Your task to perform on an android device: turn off priority inbox in the gmail app Image 0: 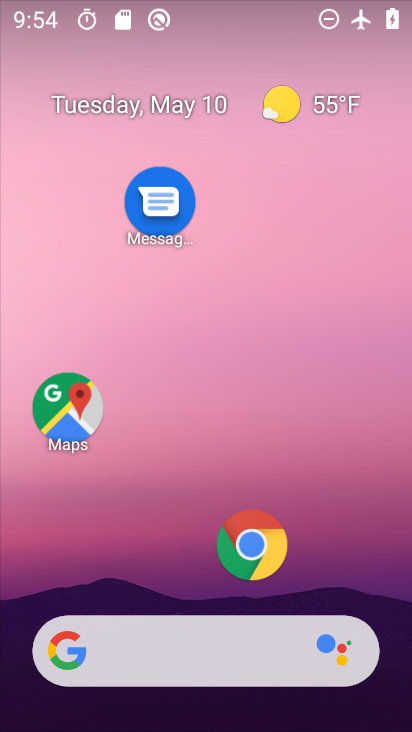
Step 0: drag from (134, 583) to (120, 162)
Your task to perform on an android device: turn off priority inbox in the gmail app Image 1: 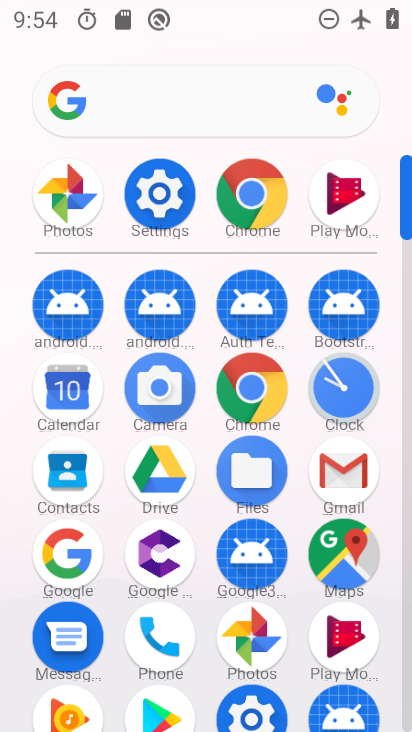
Step 1: click (339, 444)
Your task to perform on an android device: turn off priority inbox in the gmail app Image 2: 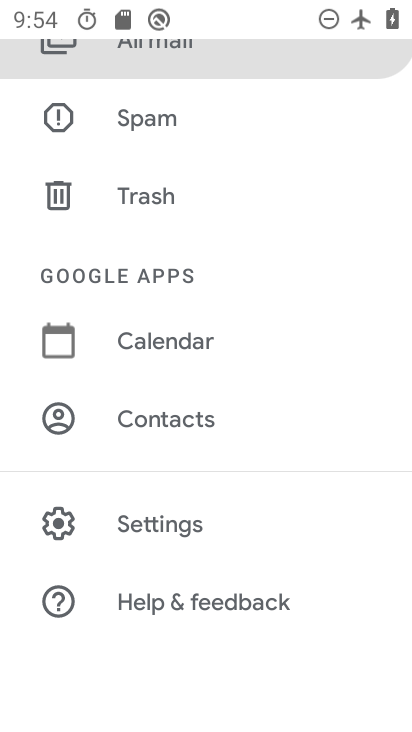
Step 2: click (182, 512)
Your task to perform on an android device: turn off priority inbox in the gmail app Image 3: 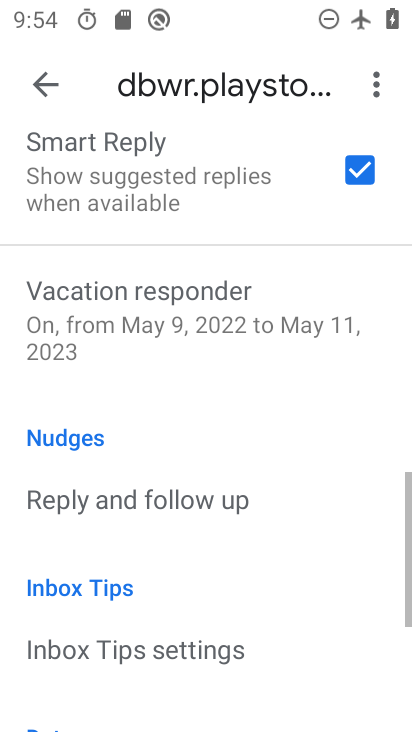
Step 3: drag from (210, 581) to (196, 303)
Your task to perform on an android device: turn off priority inbox in the gmail app Image 4: 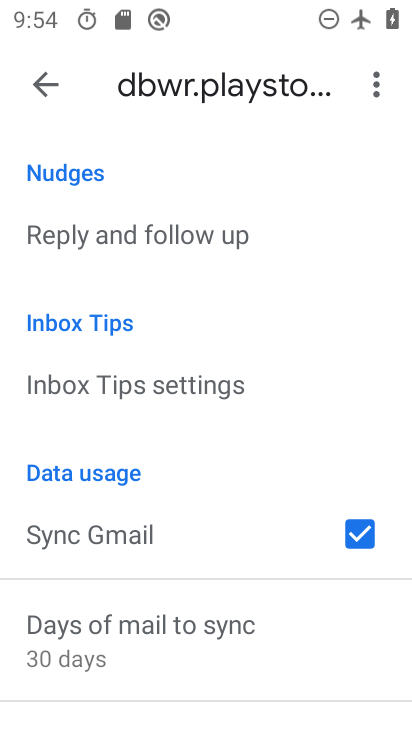
Step 4: drag from (193, 609) to (221, 304)
Your task to perform on an android device: turn off priority inbox in the gmail app Image 5: 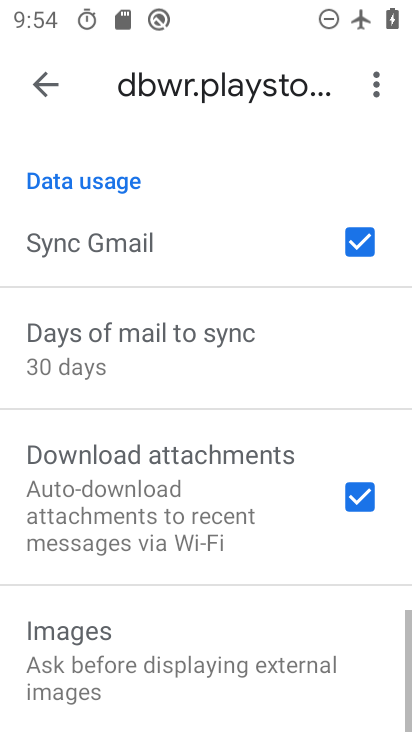
Step 5: drag from (217, 557) to (246, 290)
Your task to perform on an android device: turn off priority inbox in the gmail app Image 6: 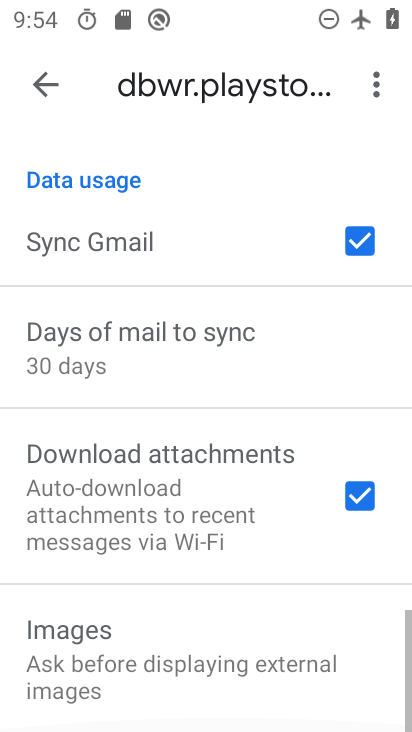
Step 6: drag from (177, 583) to (161, 339)
Your task to perform on an android device: turn off priority inbox in the gmail app Image 7: 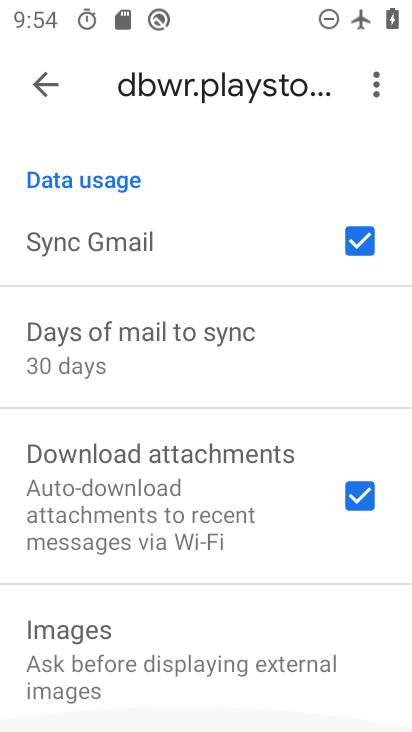
Step 7: drag from (205, 214) to (189, 525)
Your task to perform on an android device: turn off priority inbox in the gmail app Image 8: 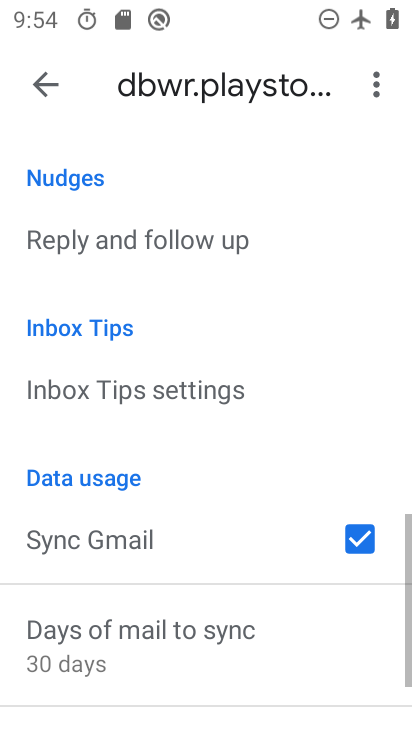
Step 8: drag from (196, 262) to (220, 547)
Your task to perform on an android device: turn off priority inbox in the gmail app Image 9: 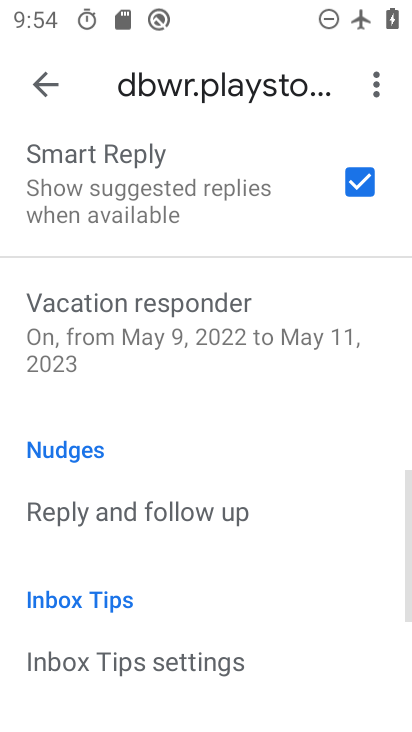
Step 9: drag from (220, 328) to (230, 570)
Your task to perform on an android device: turn off priority inbox in the gmail app Image 10: 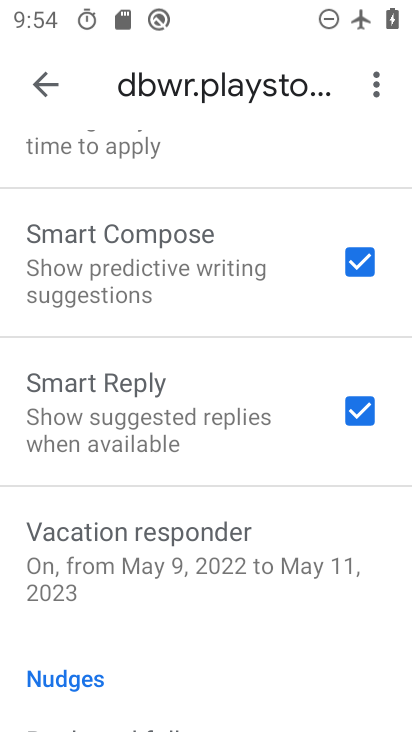
Step 10: drag from (169, 249) to (181, 598)
Your task to perform on an android device: turn off priority inbox in the gmail app Image 11: 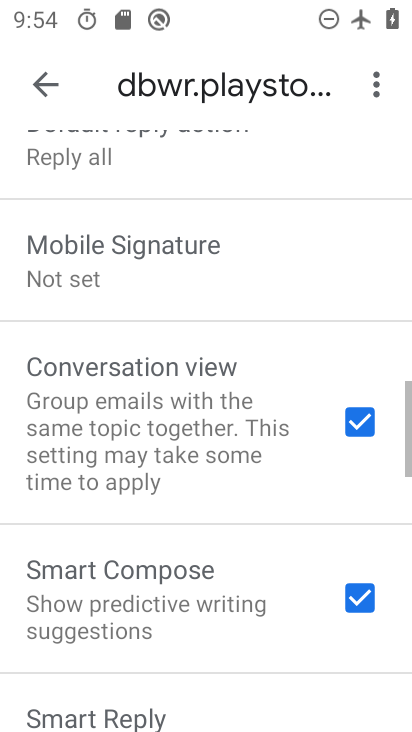
Step 11: drag from (186, 277) to (186, 521)
Your task to perform on an android device: turn off priority inbox in the gmail app Image 12: 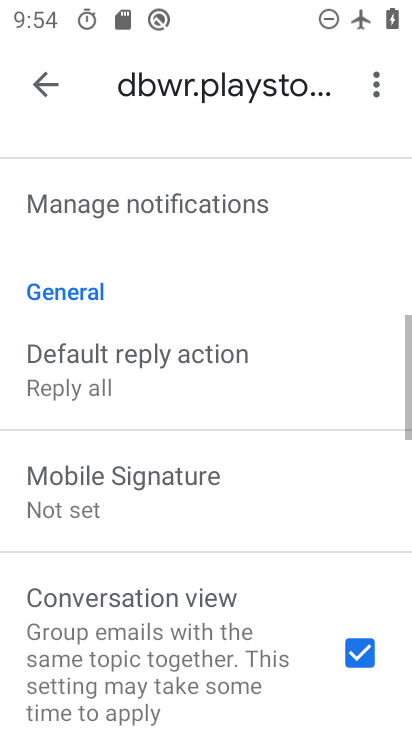
Step 12: drag from (198, 312) to (215, 416)
Your task to perform on an android device: turn off priority inbox in the gmail app Image 13: 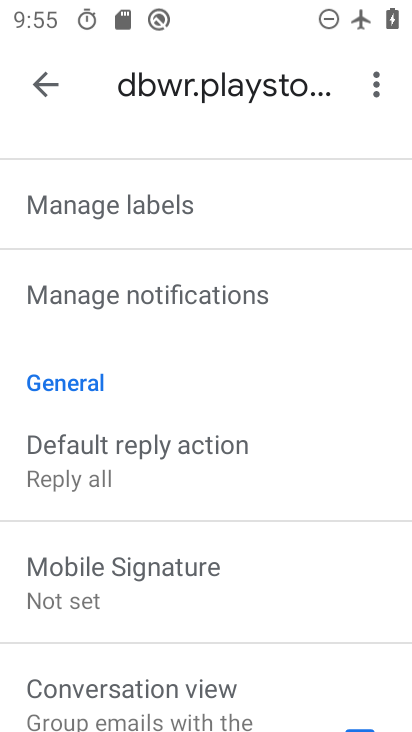
Step 13: drag from (224, 332) to (242, 601)
Your task to perform on an android device: turn off priority inbox in the gmail app Image 14: 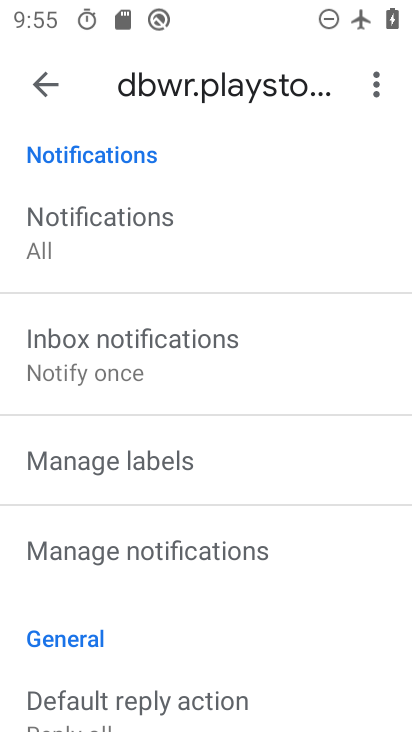
Step 14: drag from (137, 244) to (146, 426)
Your task to perform on an android device: turn off priority inbox in the gmail app Image 15: 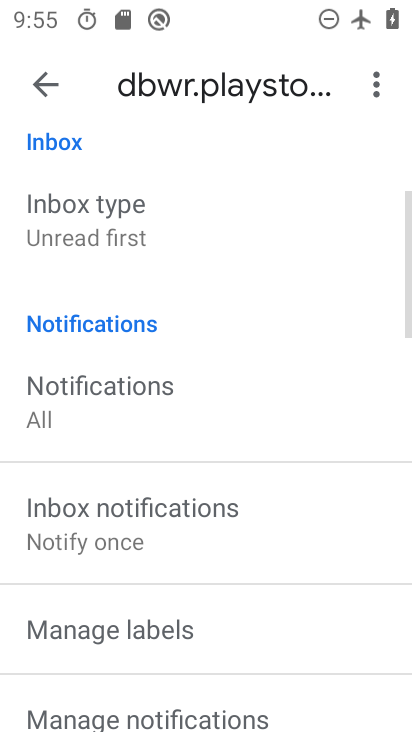
Step 15: drag from (173, 257) to (170, 520)
Your task to perform on an android device: turn off priority inbox in the gmail app Image 16: 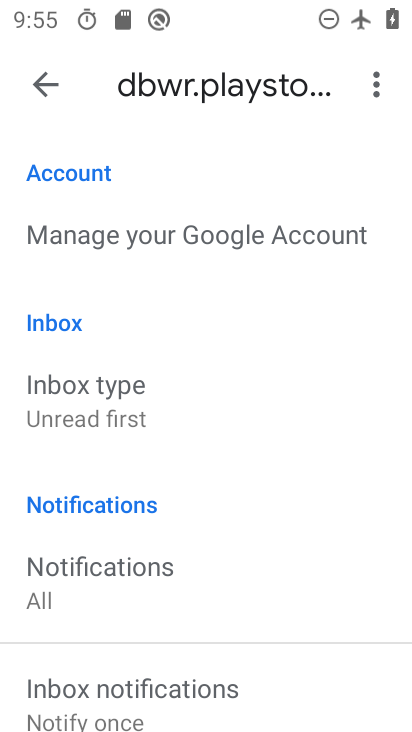
Step 16: drag from (143, 557) to (153, 429)
Your task to perform on an android device: turn off priority inbox in the gmail app Image 17: 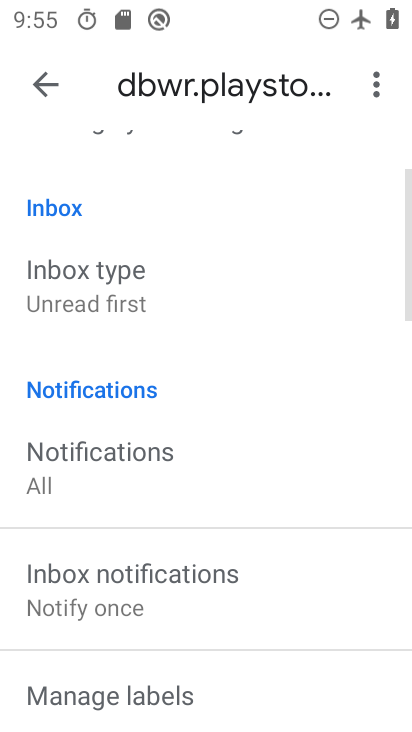
Step 17: click (119, 274)
Your task to perform on an android device: turn off priority inbox in the gmail app Image 18: 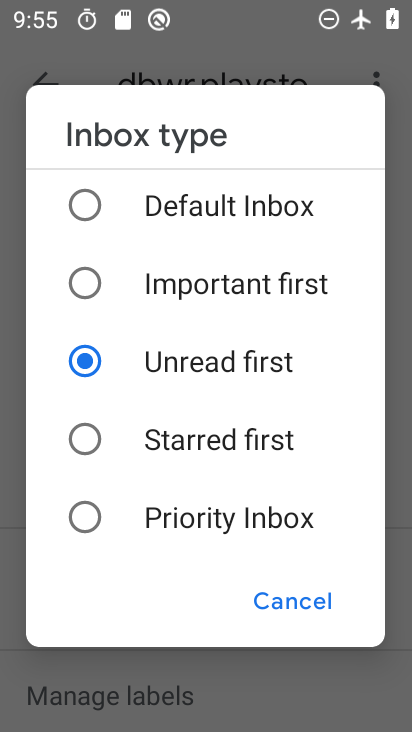
Step 18: task complete